Your task to perform on an android device: change alarm snooze length Image 0: 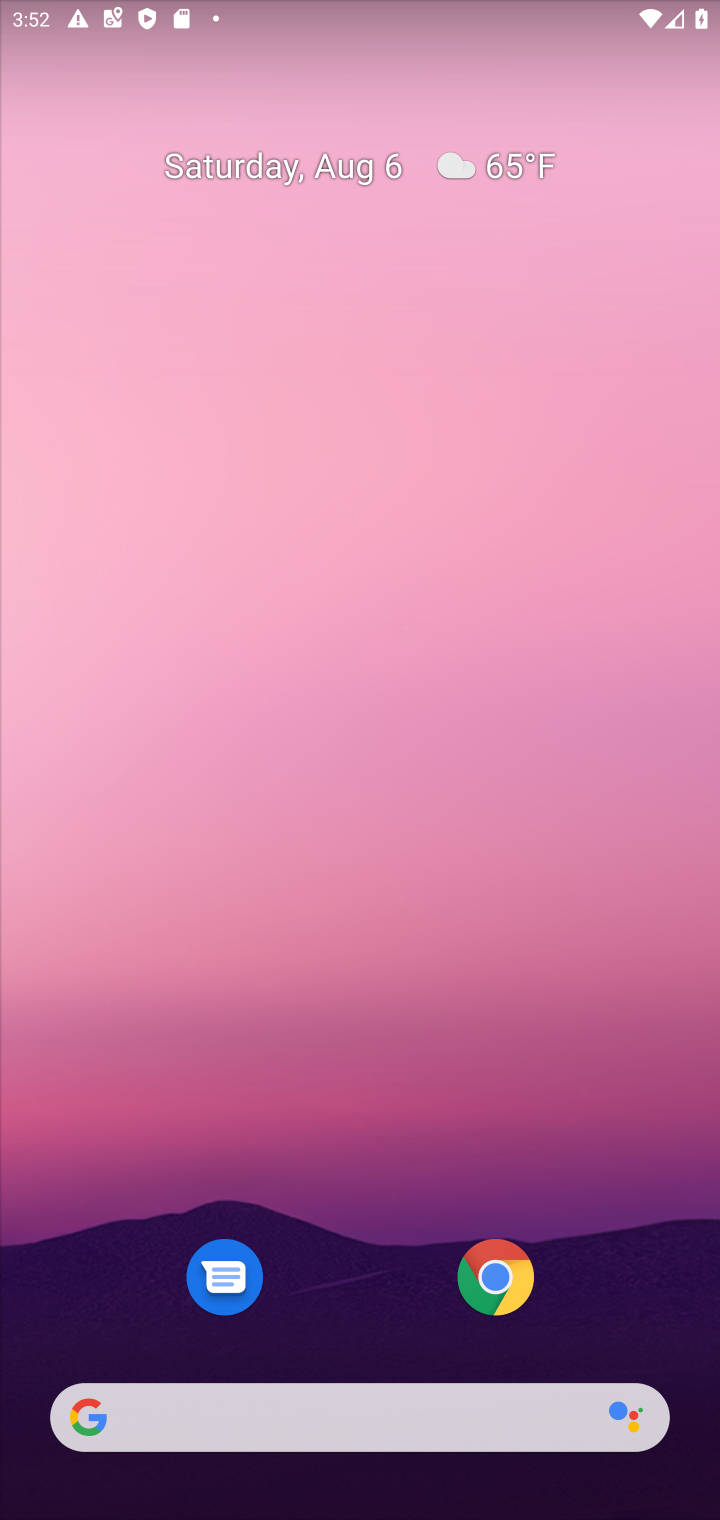
Step 0: drag from (259, 1414) to (200, 489)
Your task to perform on an android device: change alarm snooze length Image 1: 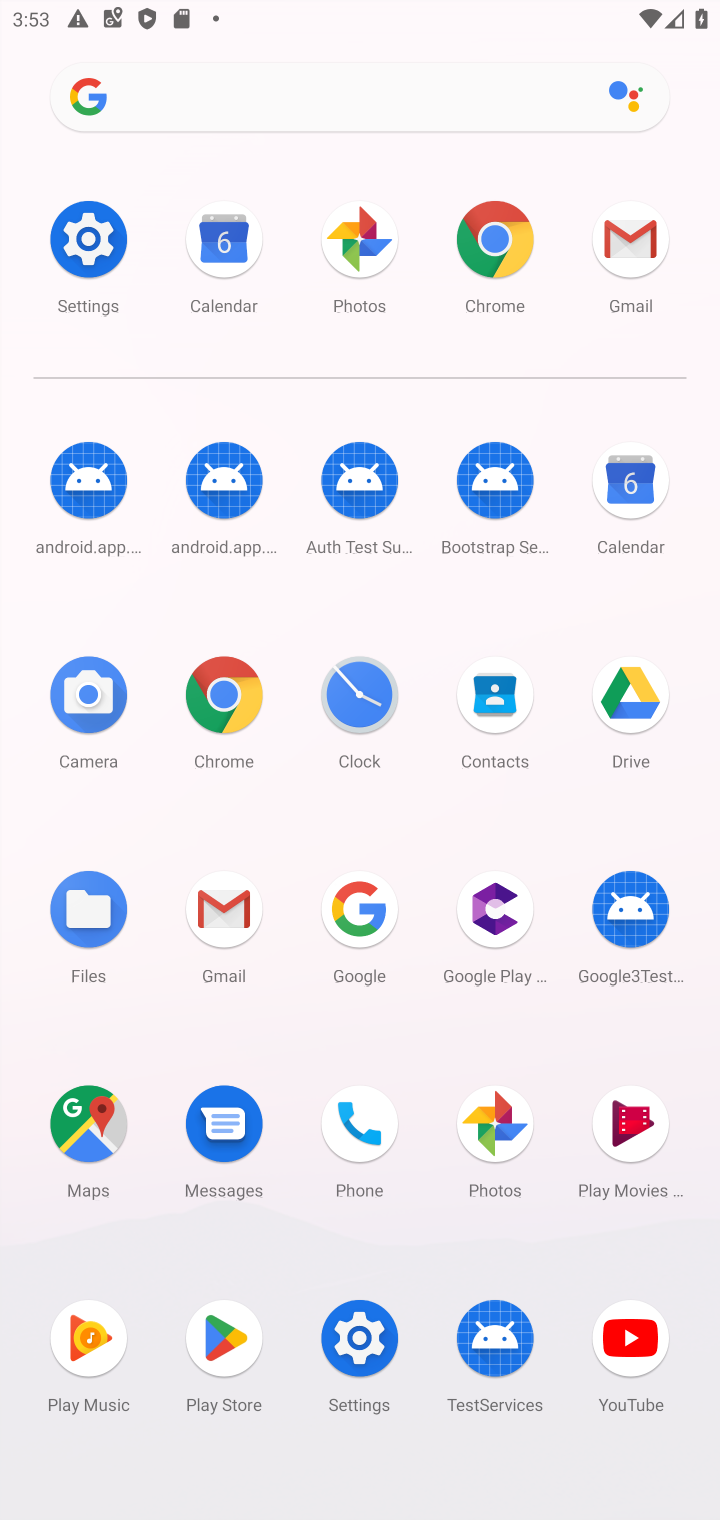
Step 1: click (340, 697)
Your task to perform on an android device: change alarm snooze length Image 2: 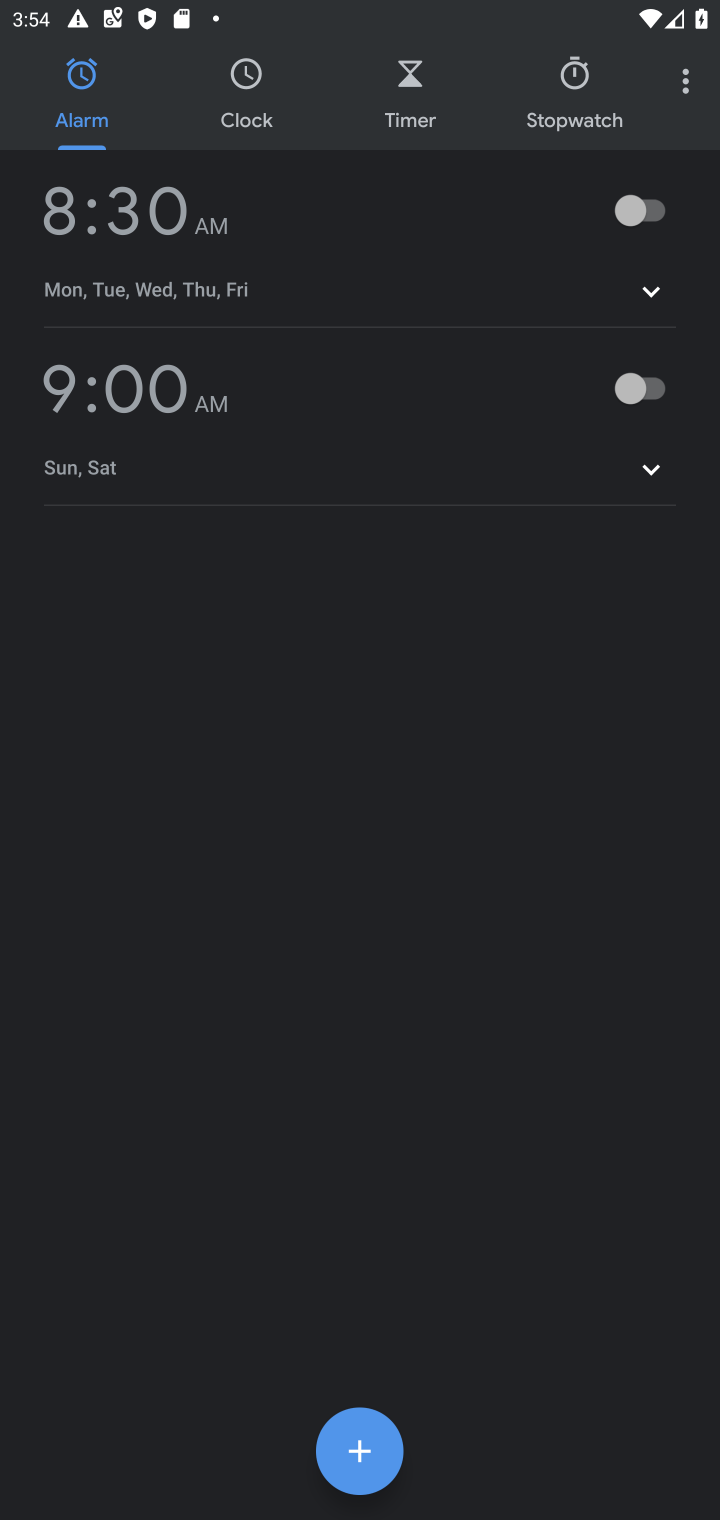
Step 2: click (683, 64)
Your task to perform on an android device: change alarm snooze length Image 3: 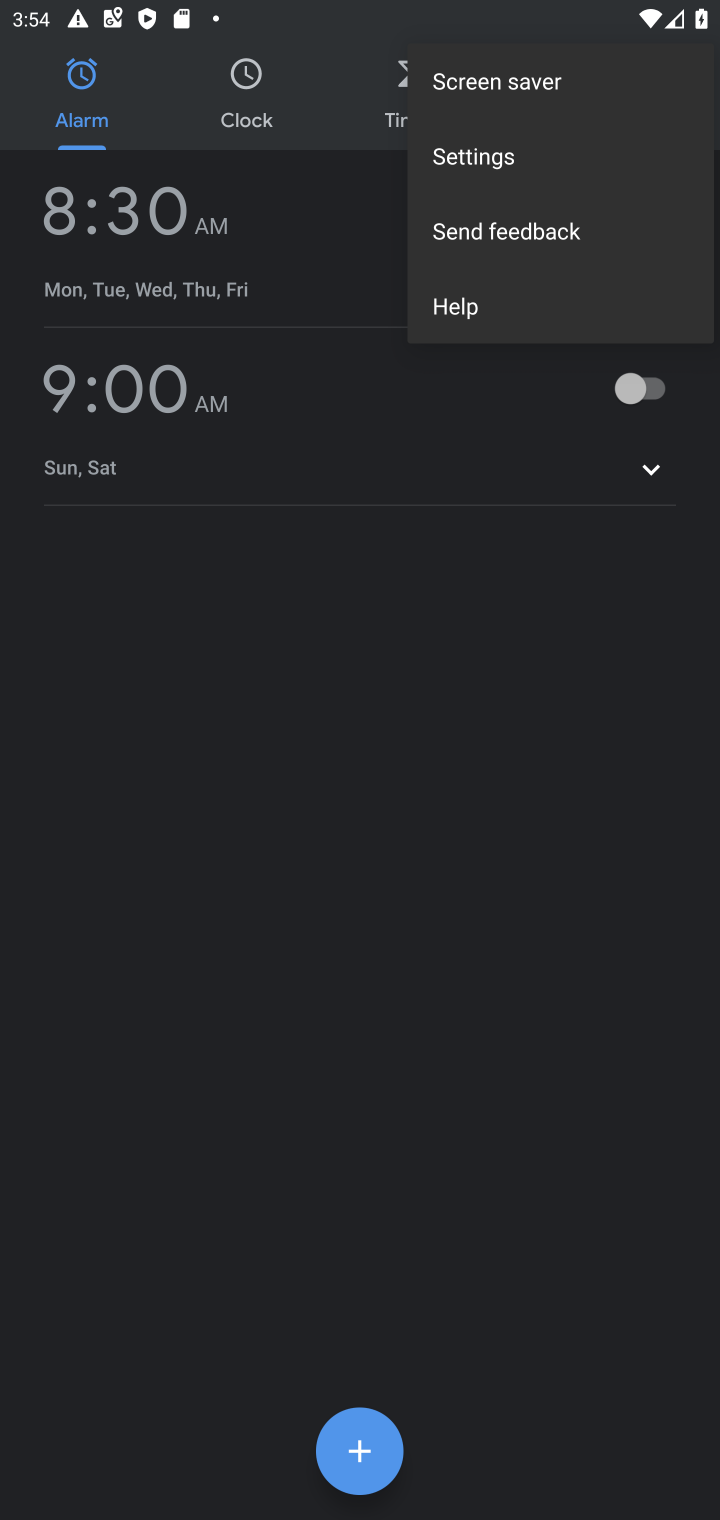
Step 3: click (524, 150)
Your task to perform on an android device: change alarm snooze length Image 4: 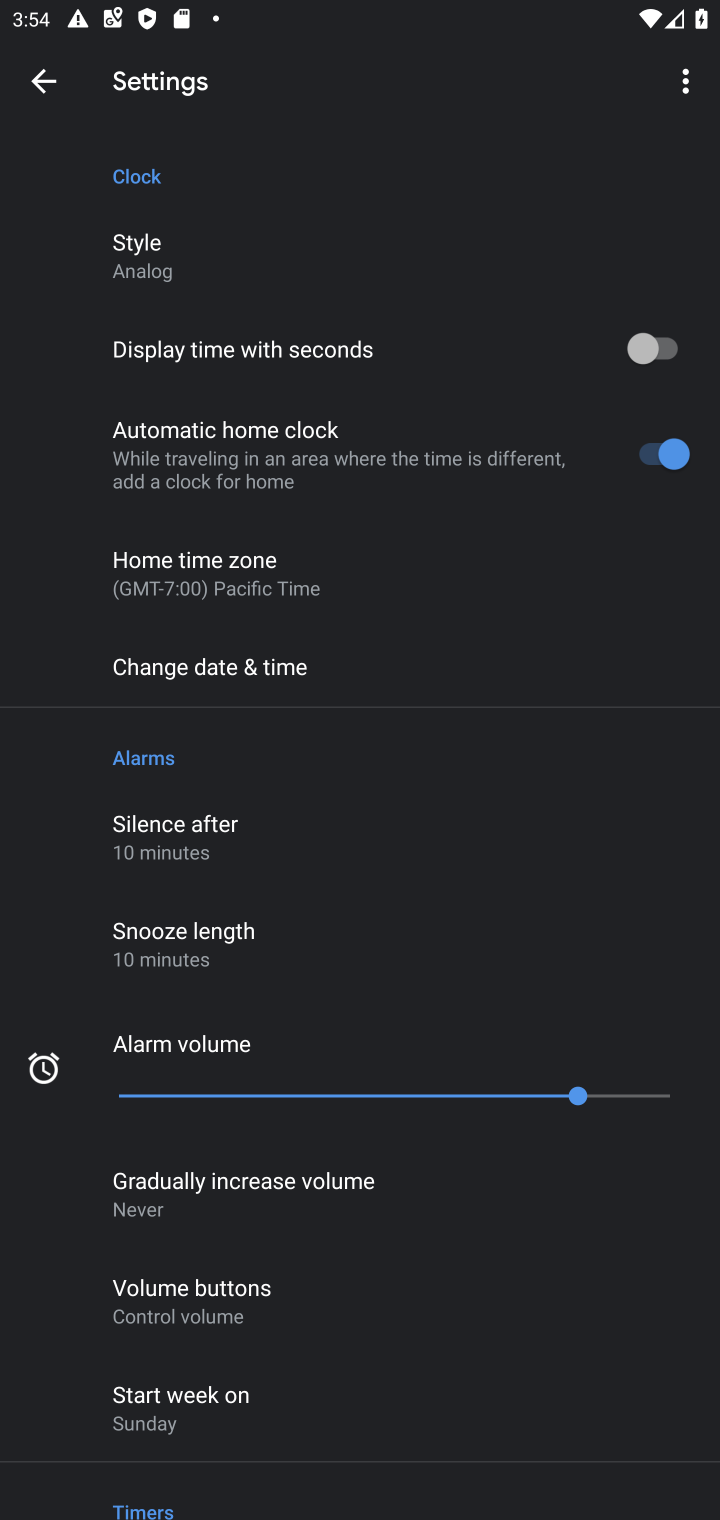
Step 4: click (269, 947)
Your task to perform on an android device: change alarm snooze length Image 5: 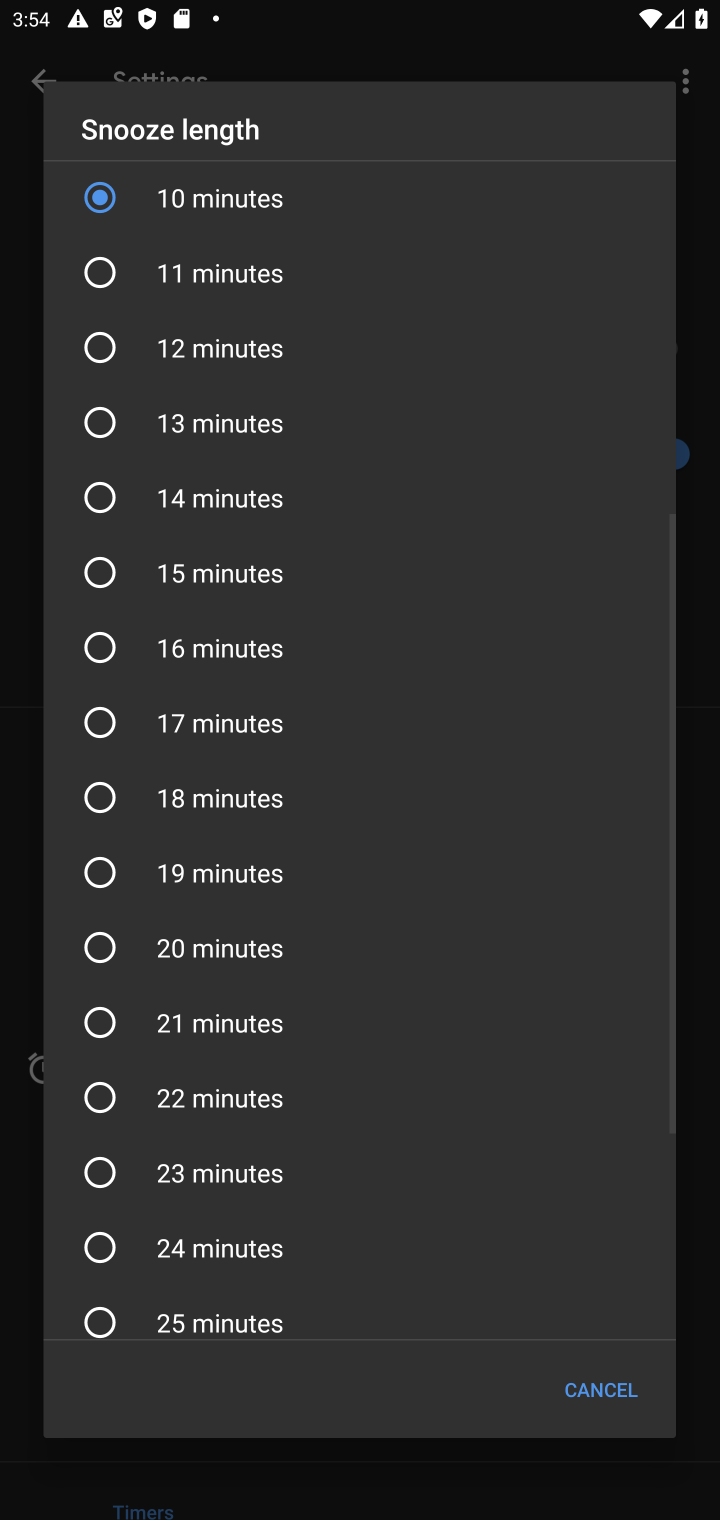
Step 5: click (121, 351)
Your task to perform on an android device: change alarm snooze length Image 6: 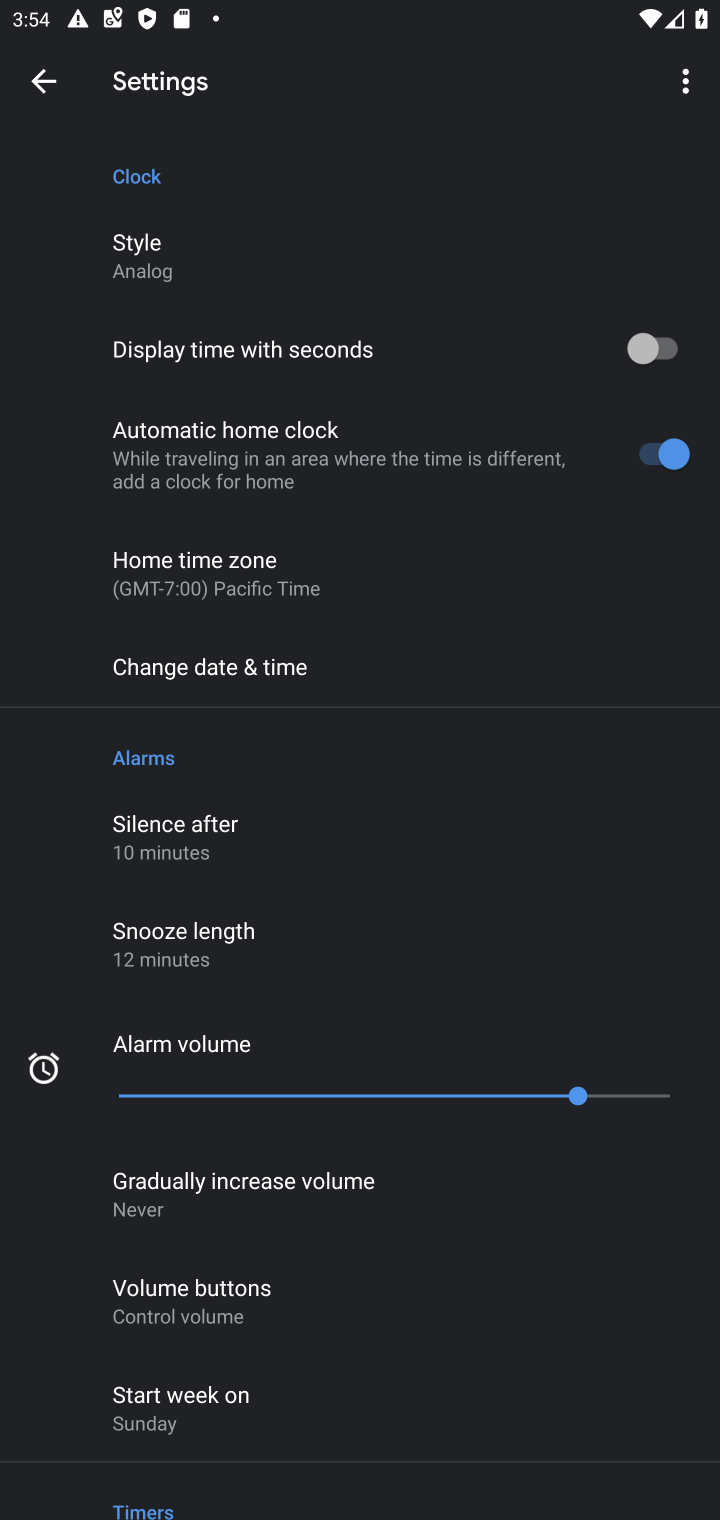
Step 6: task complete